Your task to perform on an android device: turn off picture-in-picture Image 0: 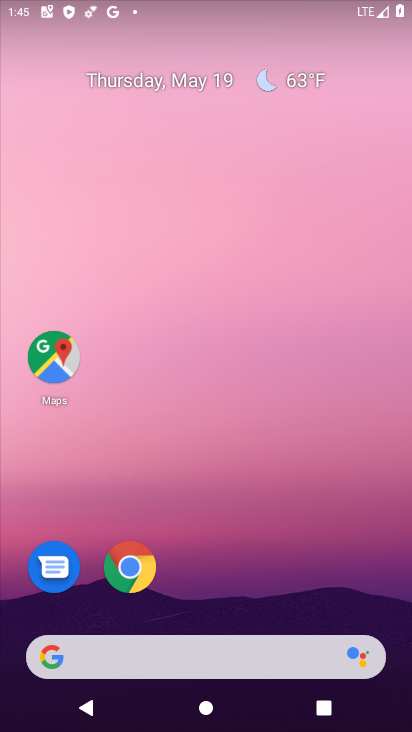
Step 0: drag from (287, 502) to (279, 35)
Your task to perform on an android device: turn off picture-in-picture Image 1: 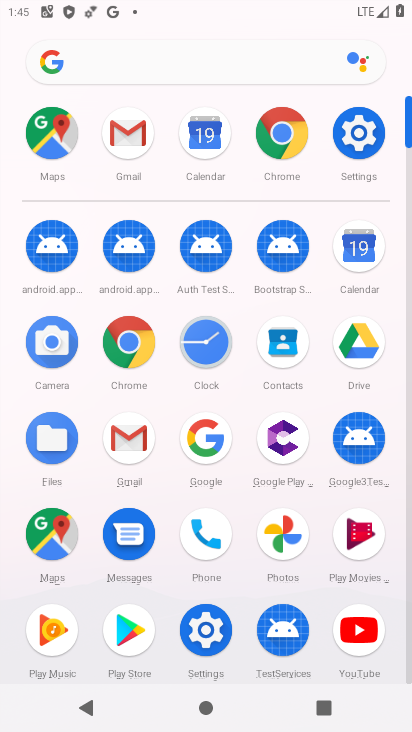
Step 1: click (264, 113)
Your task to perform on an android device: turn off picture-in-picture Image 2: 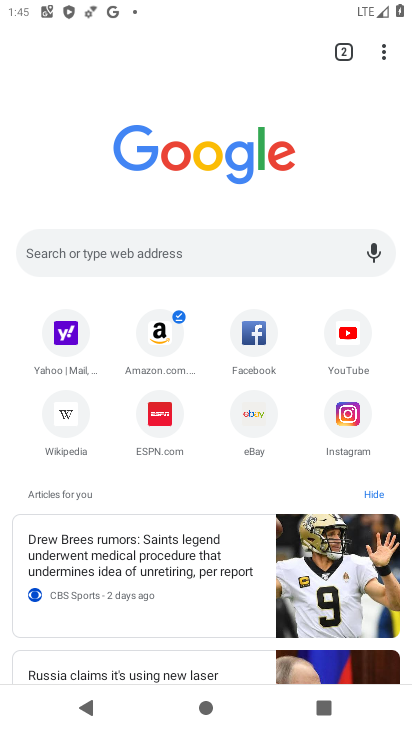
Step 2: press home button
Your task to perform on an android device: turn off picture-in-picture Image 3: 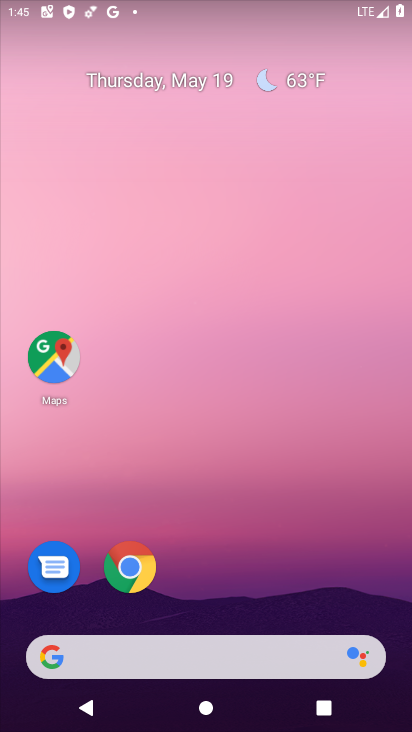
Step 3: click (120, 568)
Your task to perform on an android device: turn off picture-in-picture Image 4: 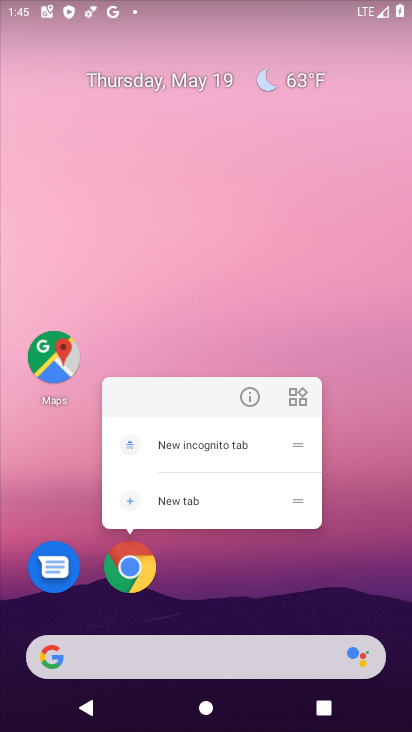
Step 4: click (249, 398)
Your task to perform on an android device: turn off picture-in-picture Image 5: 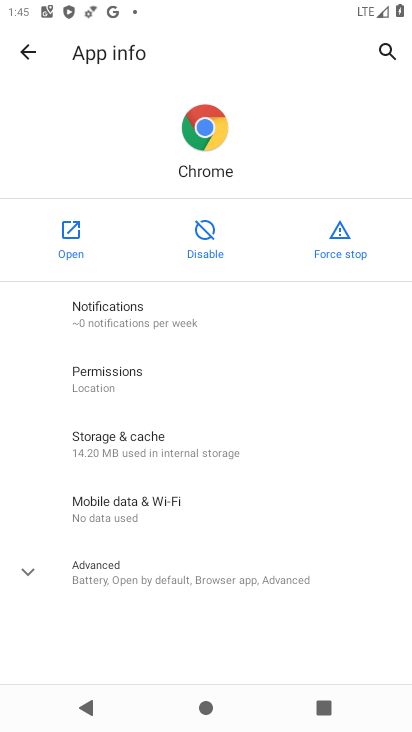
Step 5: click (97, 565)
Your task to perform on an android device: turn off picture-in-picture Image 6: 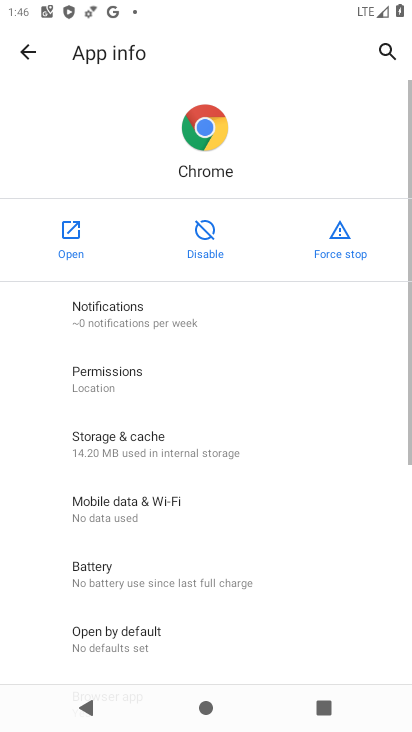
Step 6: drag from (80, 612) to (113, 210)
Your task to perform on an android device: turn off picture-in-picture Image 7: 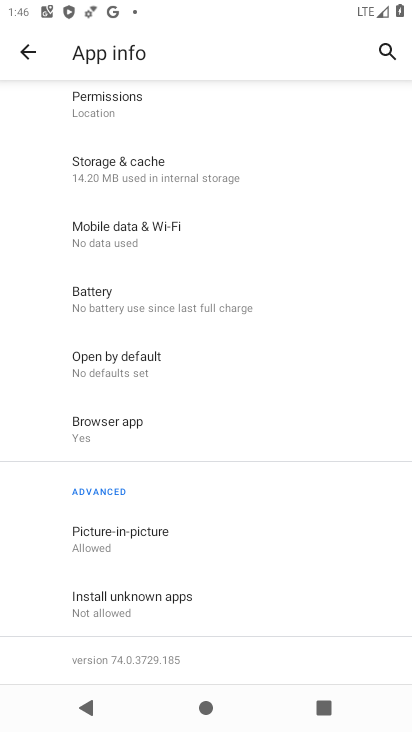
Step 7: click (150, 541)
Your task to perform on an android device: turn off picture-in-picture Image 8: 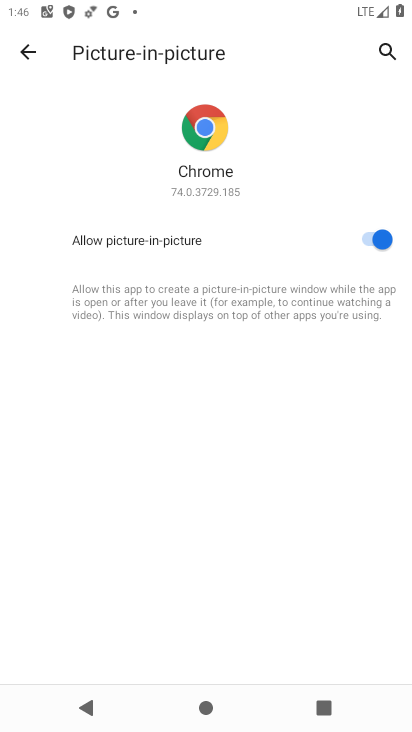
Step 8: click (371, 229)
Your task to perform on an android device: turn off picture-in-picture Image 9: 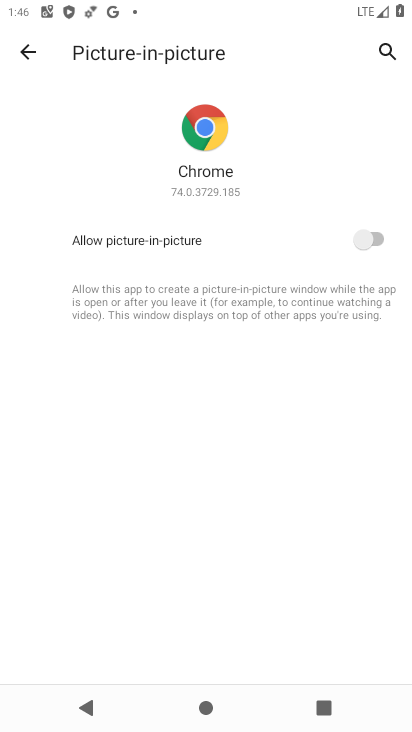
Step 9: task complete